Your task to perform on an android device: check battery use Image 0: 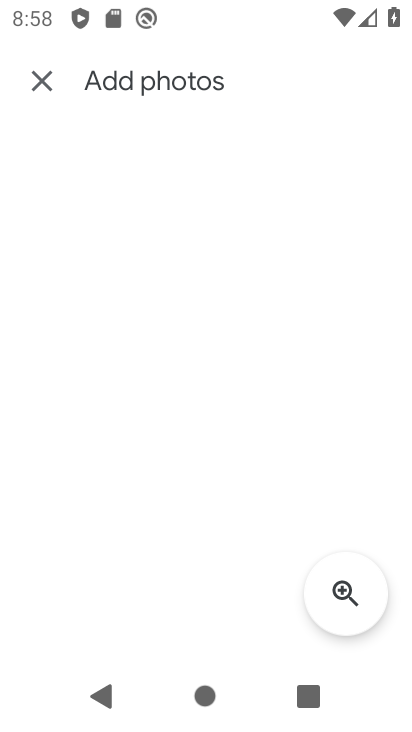
Step 0: press back button
Your task to perform on an android device: check battery use Image 1: 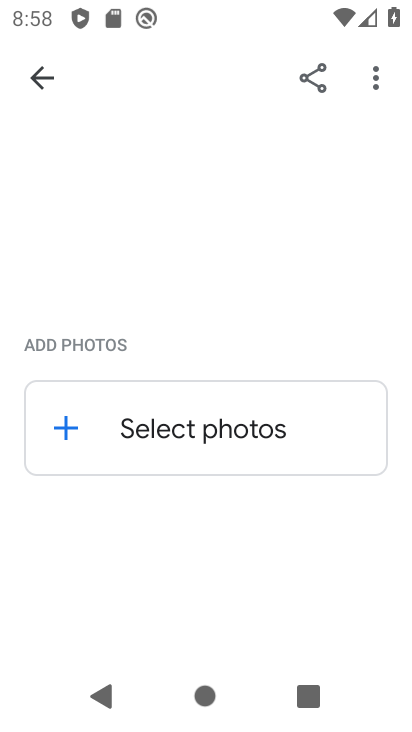
Step 1: press back button
Your task to perform on an android device: check battery use Image 2: 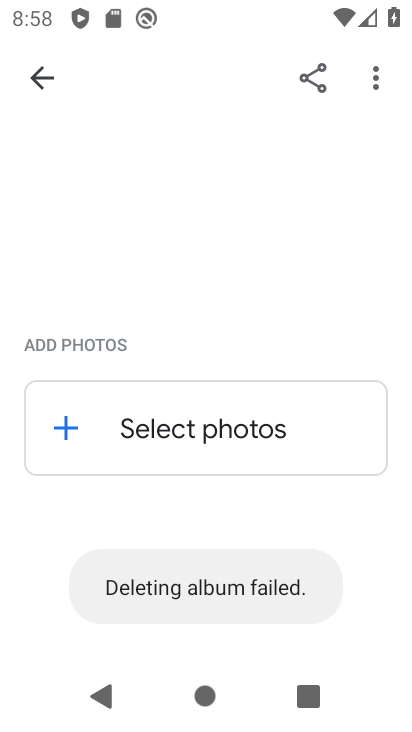
Step 2: press back button
Your task to perform on an android device: check battery use Image 3: 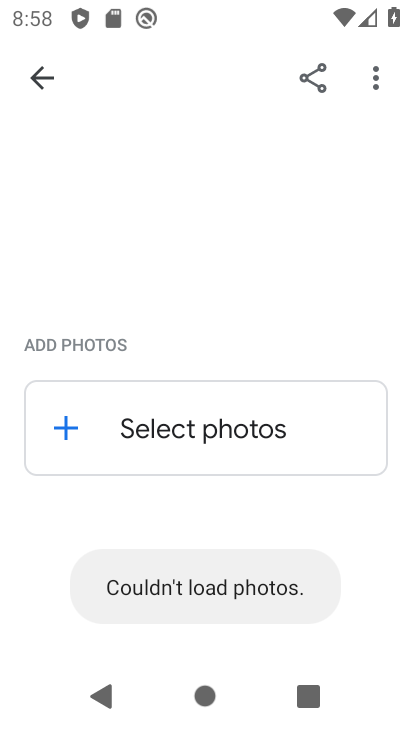
Step 3: press home button
Your task to perform on an android device: check battery use Image 4: 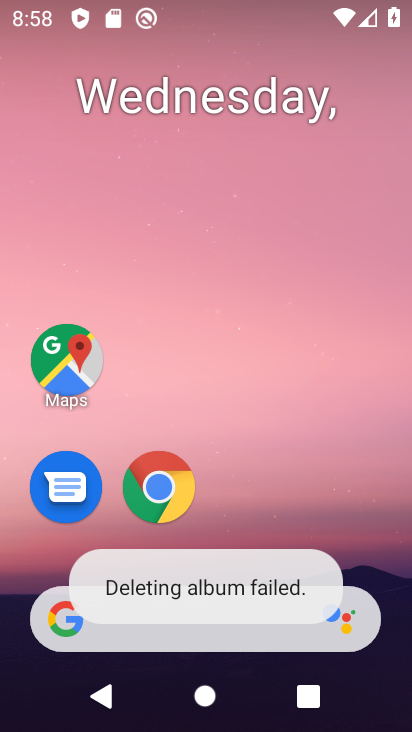
Step 4: drag from (246, 524) to (303, 10)
Your task to perform on an android device: check battery use Image 5: 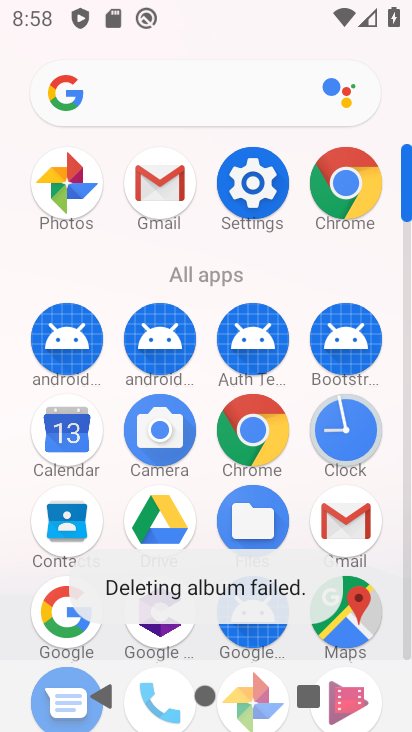
Step 5: click (255, 191)
Your task to perform on an android device: check battery use Image 6: 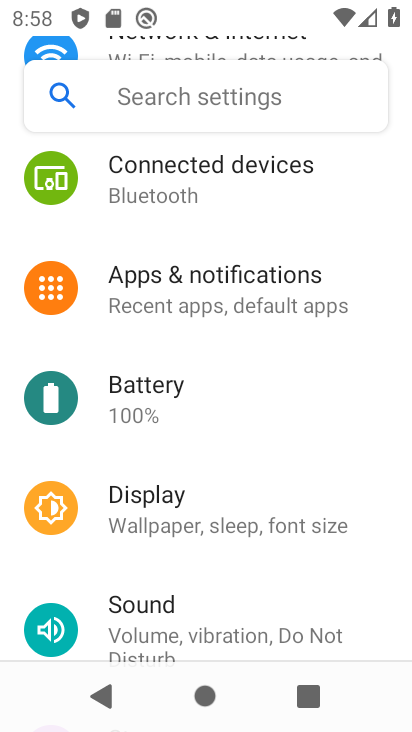
Step 6: click (179, 400)
Your task to perform on an android device: check battery use Image 7: 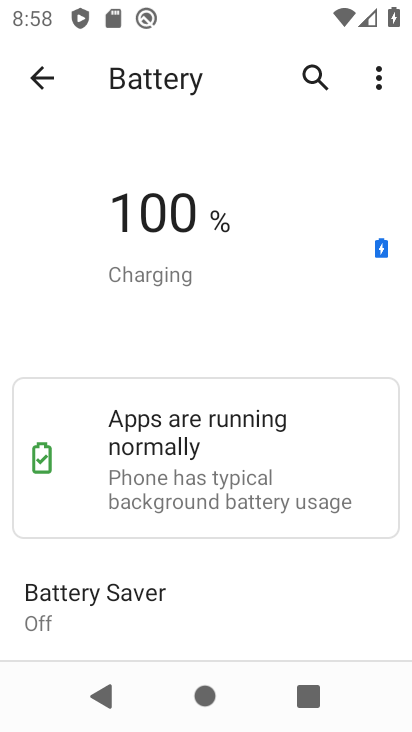
Step 7: drag from (380, 74) to (295, 248)
Your task to perform on an android device: check battery use Image 8: 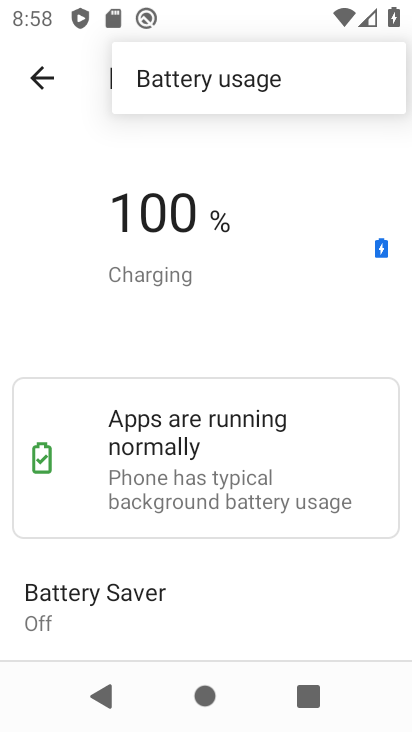
Step 8: click (295, 248)
Your task to perform on an android device: check battery use Image 9: 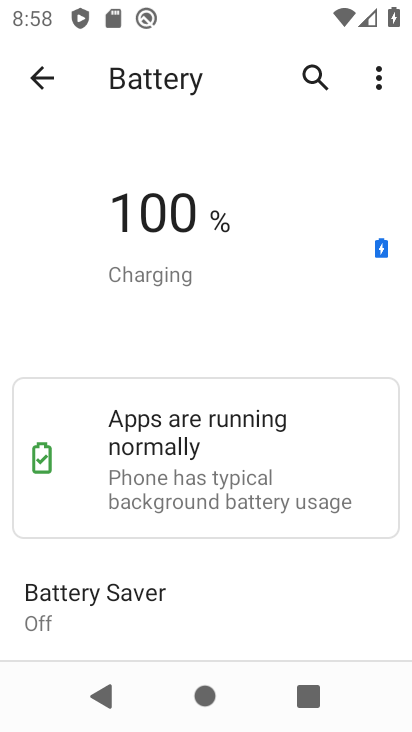
Step 9: click (375, 73)
Your task to perform on an android device: check battery use Image 10: 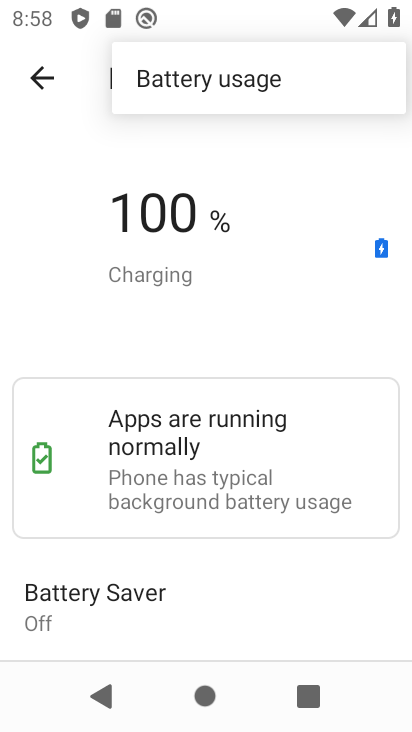
Step 10: click (240, 74)
Your task to perform on an android device: check battery use Image 11: 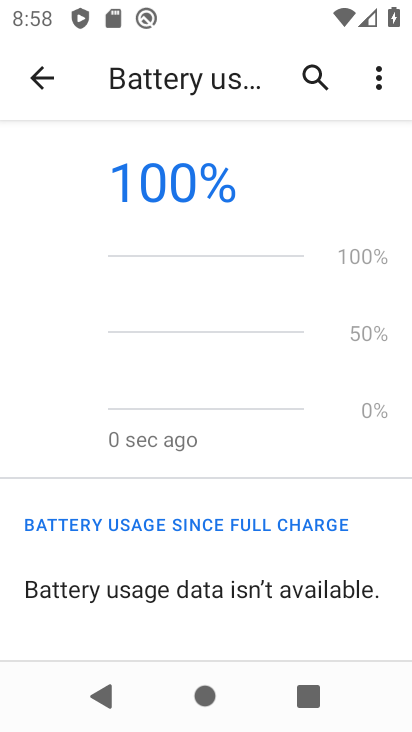
Step 11: task complete